Your task to perform on an android device: Go to Yahoo.com Image 0: 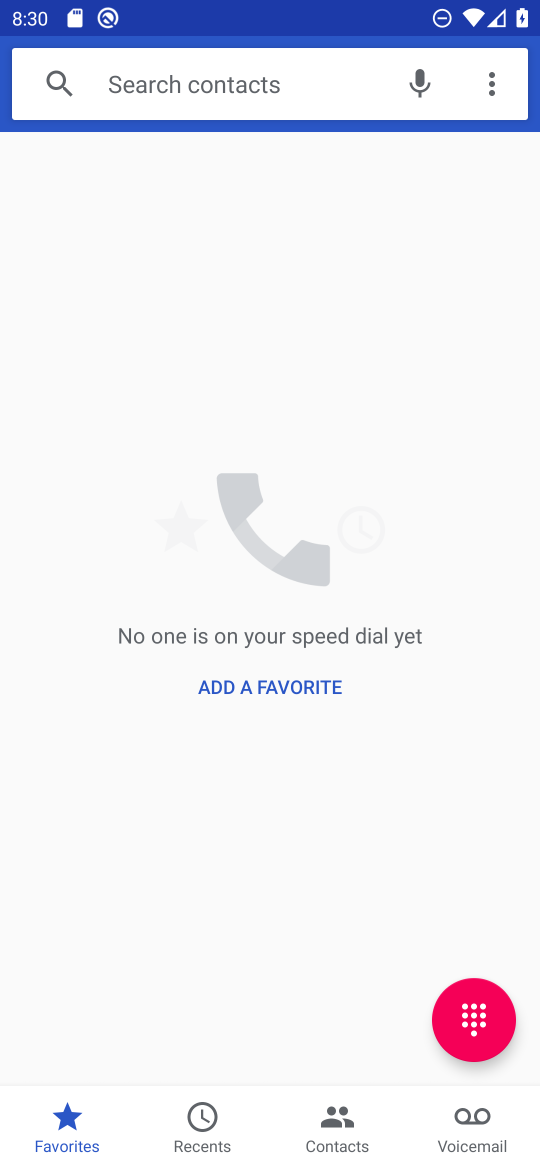
Step 0: press home button
Your task to perform on an android device: Go to Yahoo.com Image 1: 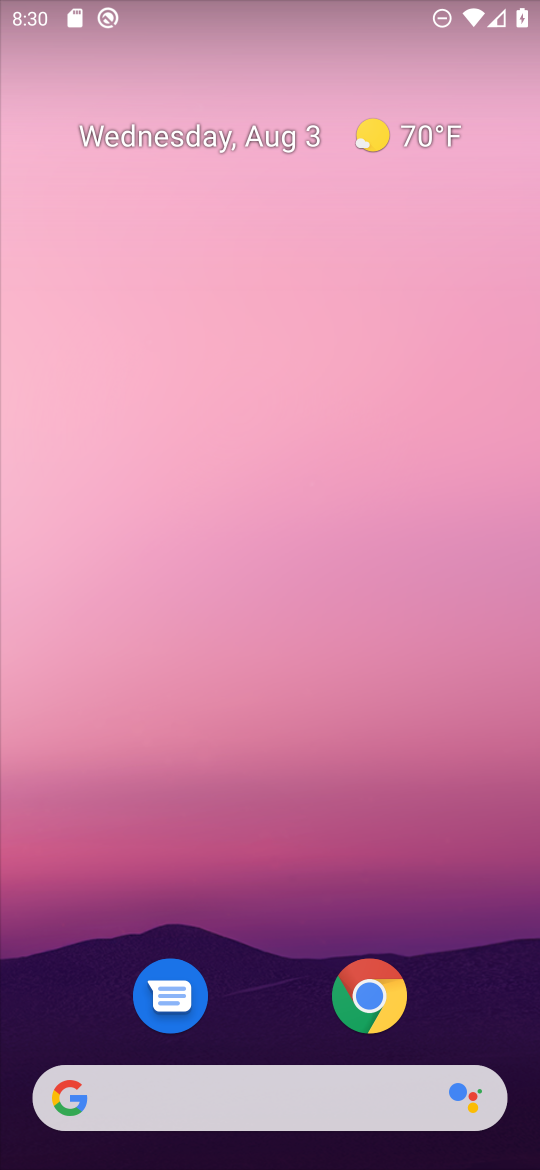
Step 1: click (326, 1098)
Your task to perform on an android device: Go to Yahoo.com Image 2: 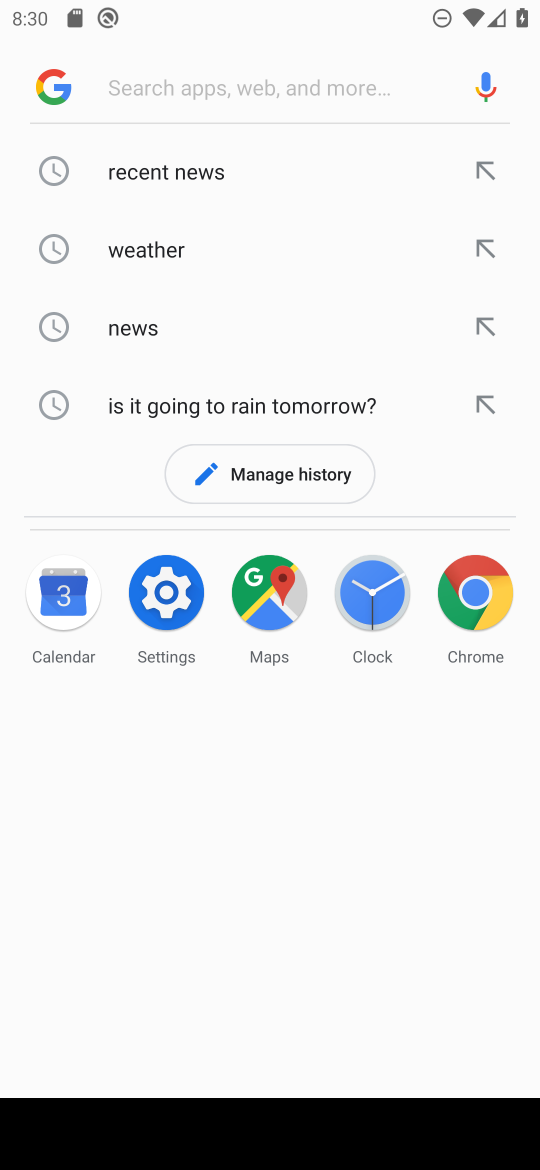
Step 2: type "yahoo.com"
Your task to perform on an android device: Go to Yahoo.com Image 3: 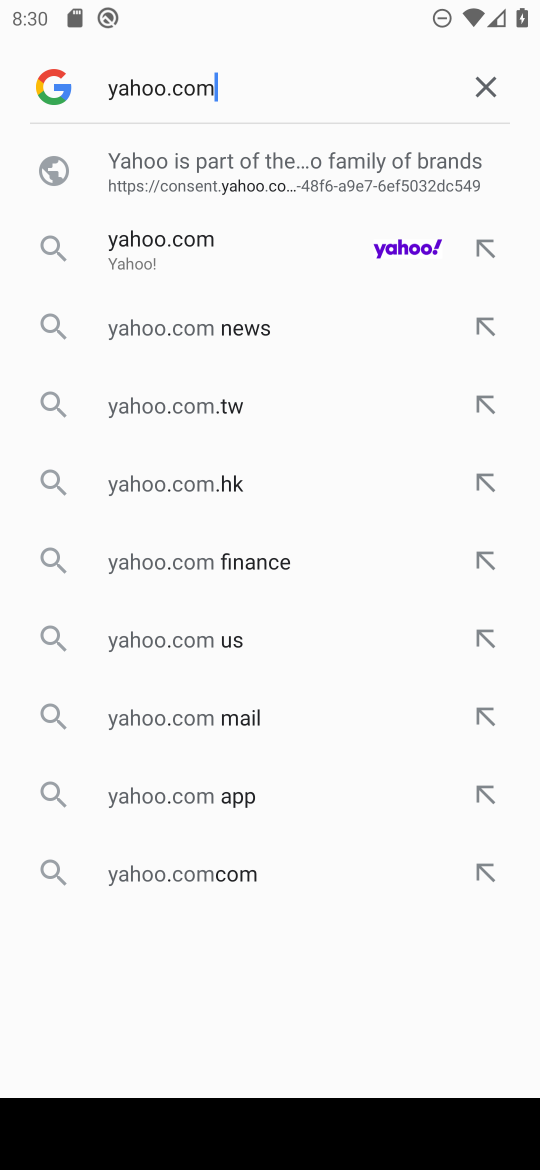
Step 3: click (350, 251)
Your task to perform on an android device: Go to Yahoo.com Image 4: 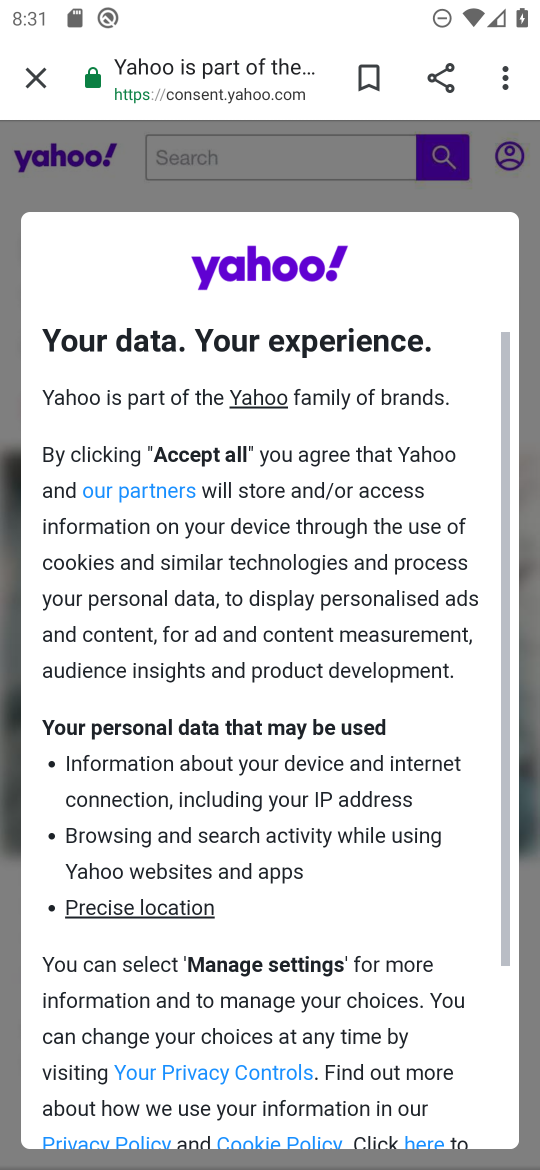
Step 4: drag from (318, 911) to (291, 256)
Your task to perform on an android device: Go to Yahoo.com Image 5: 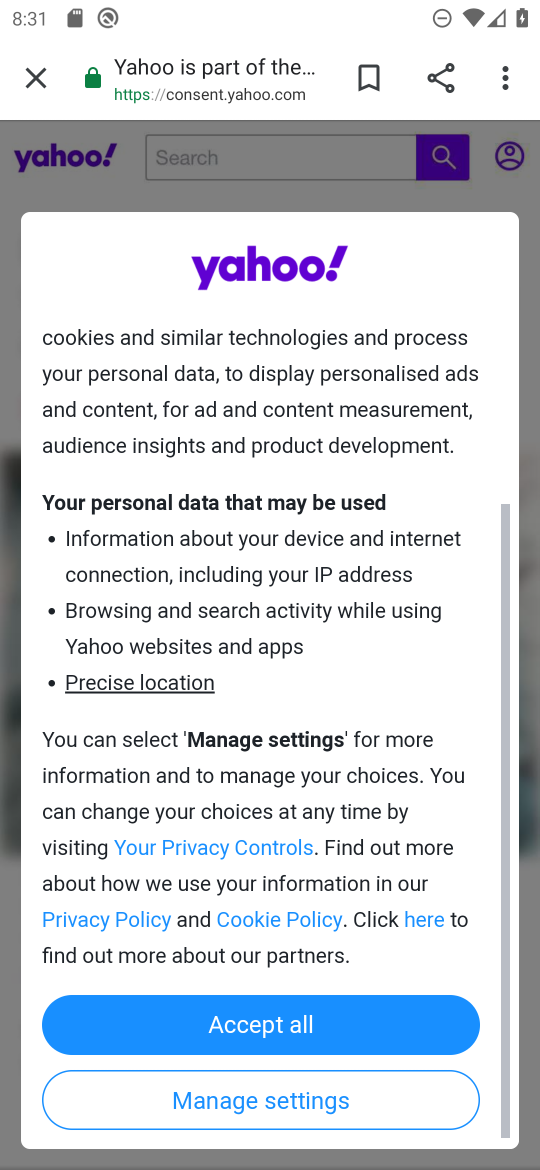
Step 5: click (355, 1030)
Your task to perform on an android device: Go to Yahoo.com Image 6: 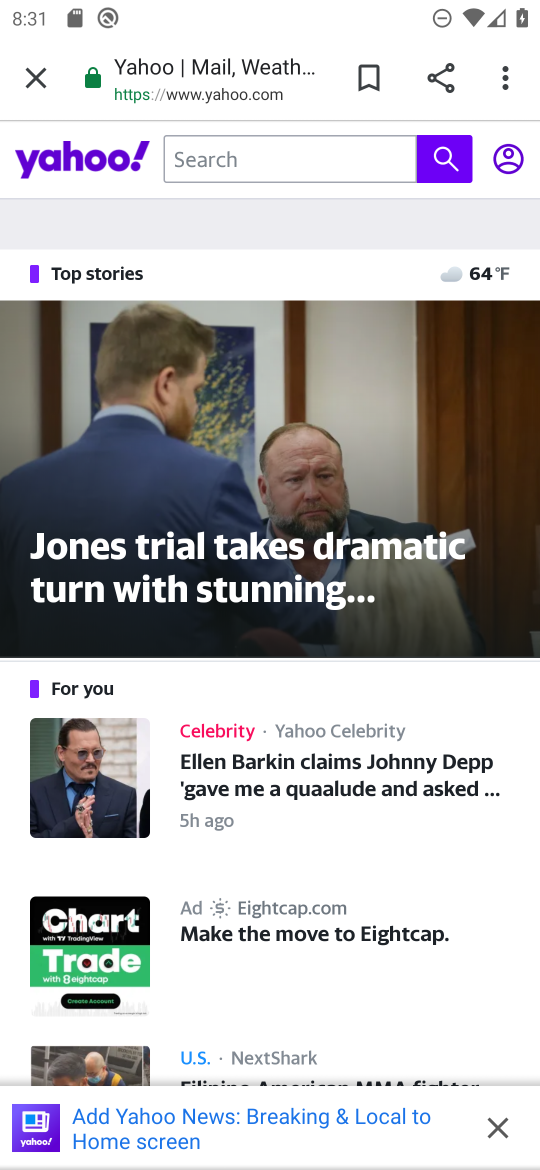
Step 6: task complete